Your task to perform on an android device: delete browsing data in the chrome app Image 0: 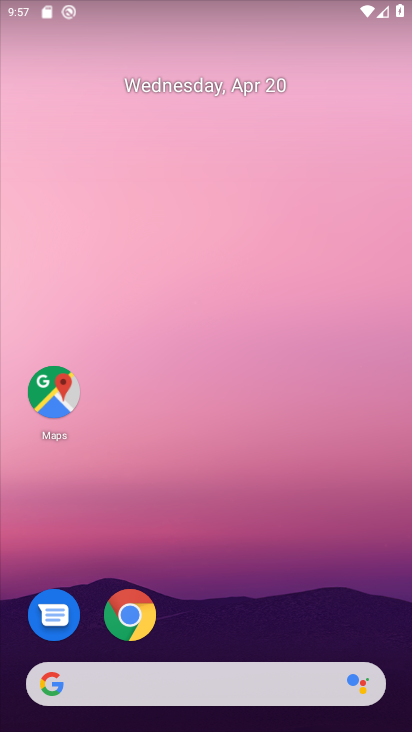
Step 0: drag from (344, 570) to (344, 139)
Your task to perform on an android device: delete browsing data in the chrome app Image 1: 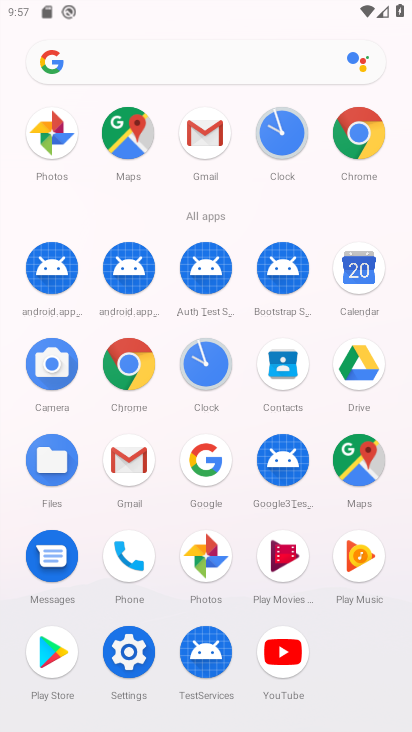
Step 1: click (147, 384)
Your task to perform on an android device: delete browsing data in the chrome app Image 2: 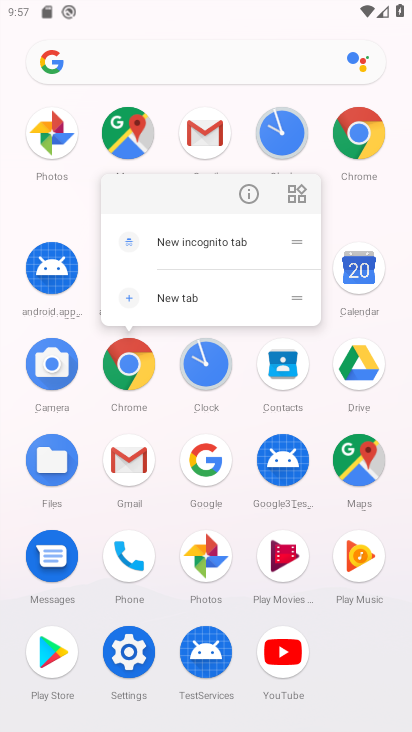
Step 2: click (135, 375)
Your task to perform on an android device: delete browsing data in the chrome app Image 3: 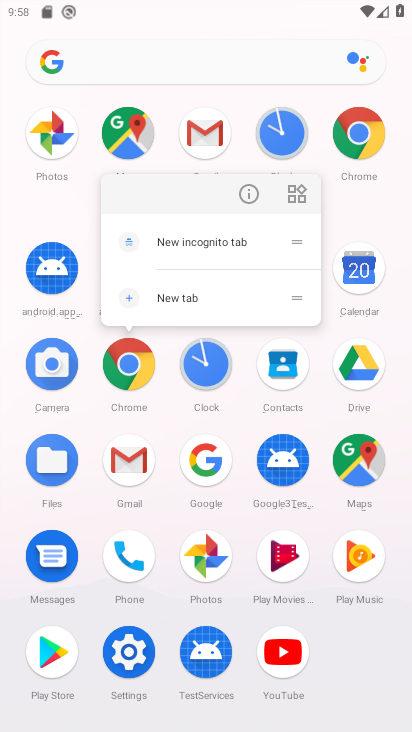
Step 3: click (135, 375)
Your task to perform on an android device: delete browsing data in the chrome app Image 4: 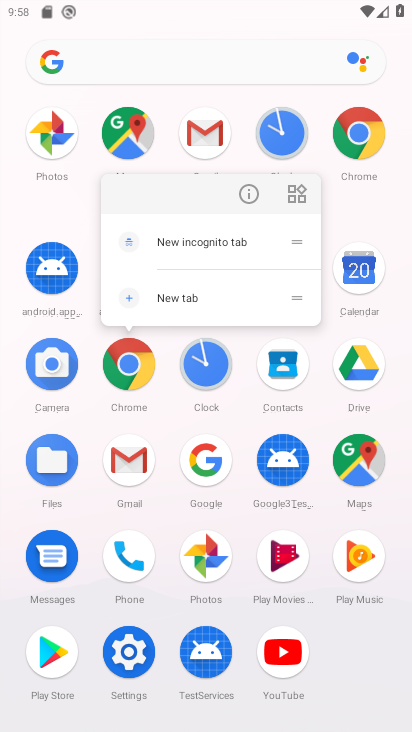
Step 4: click (138, 356)
Your task to perform on an android device: delete browsing data in the chrome app Image 5: 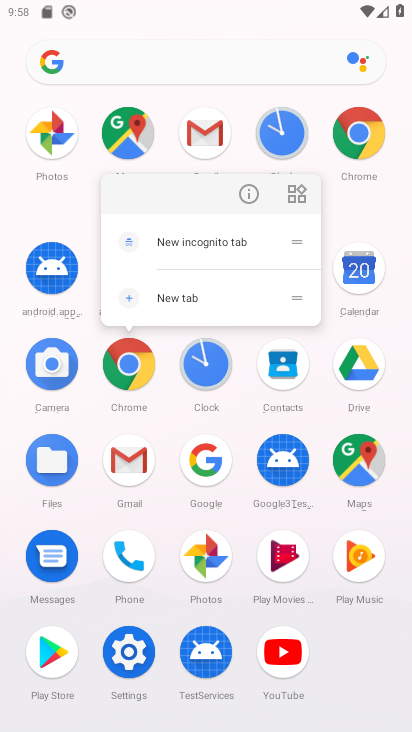
Step 5: click (137, 362)
Your task to perform on an android device: delete browsing data in the chrome app Image 6: 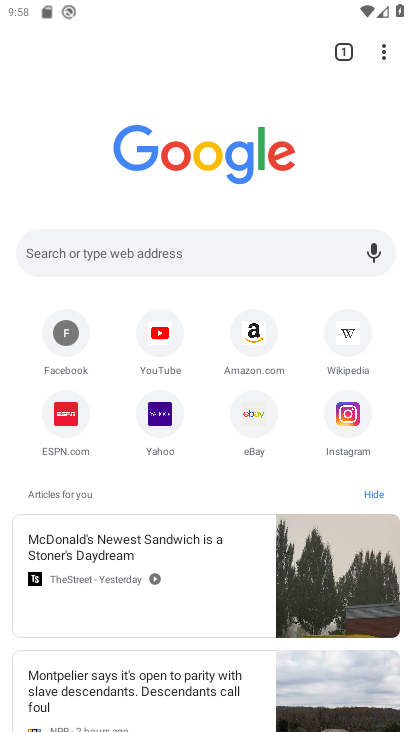
Step 6: task complete